Your task to perform on an android device: Turn on the flashlight Image 0: 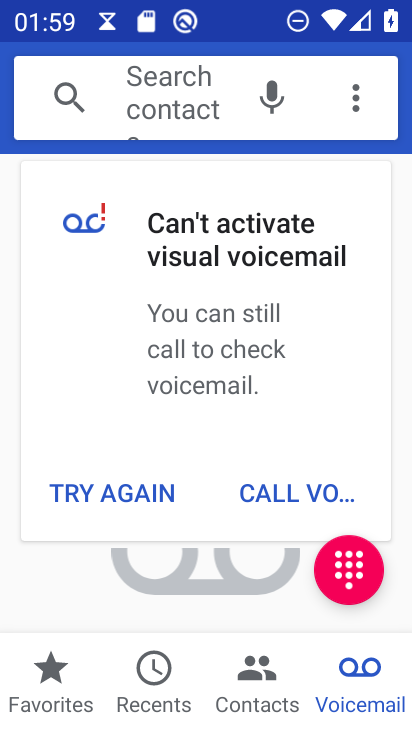
Step 0: press home button
Your task to perform on an android device: Turn on the flashlight Image 1: 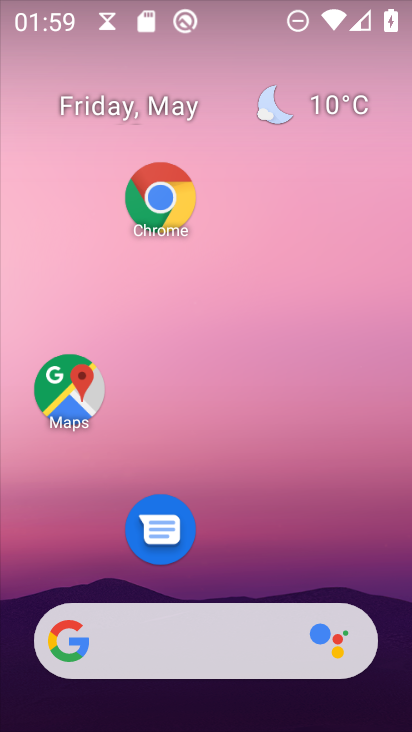
Step 1: drag from (254, 440) to (232, 234)
Your task to perform on an android device: Turn on the flashlight Image 2: 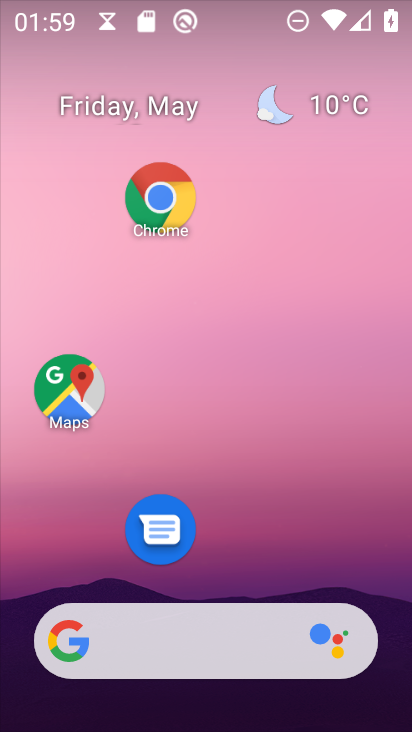
Step 2: drag from (231, 542) to (225, 211)
Your task to perform on an android device: Turn on the flashlight Image 3: 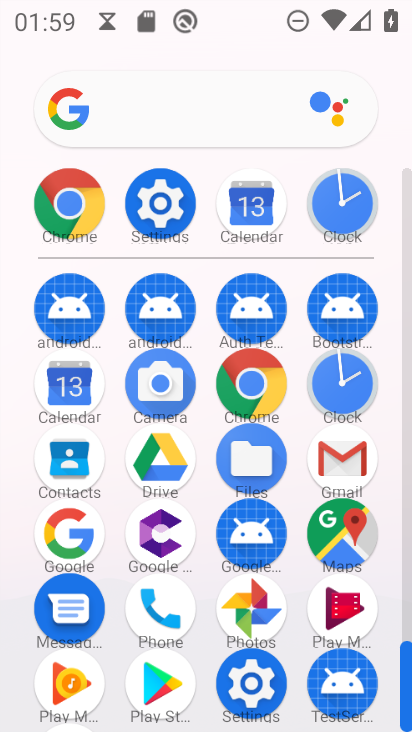
Step 3: click (166, 210)
Your task to perform on an android device: Turn on the flashlight Image 4: 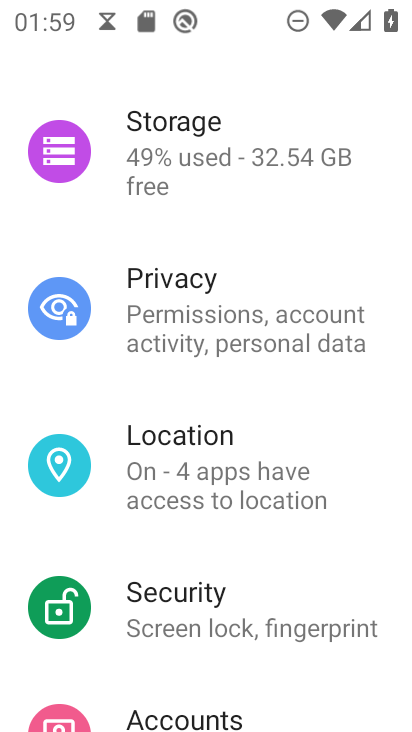
Step 4: task complete